Your task to perform on an android device: turn off improve location accuracy Image 0: 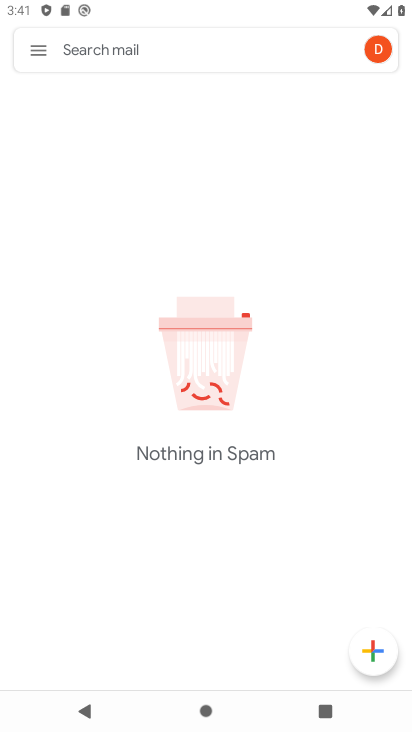
Step 0: press back button
Your task to perform on an android device: turn off improve location accuracy Image 1: 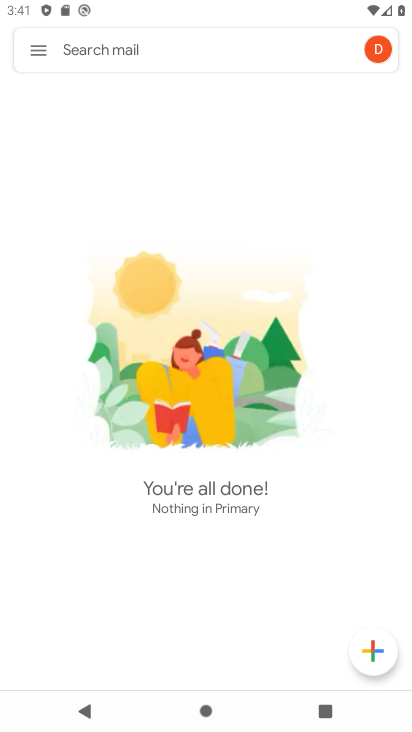
Step 1: press back button
Your task to perform on an android device: turn off improve location accuracy Image 2: 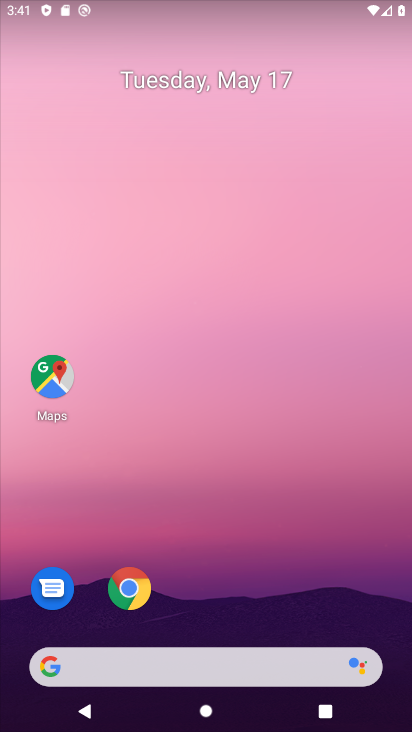
Step 2: drag from (269, 535) to (263, 69)
Your task to perform on an android device: turn off improve location accuracy Image 3: 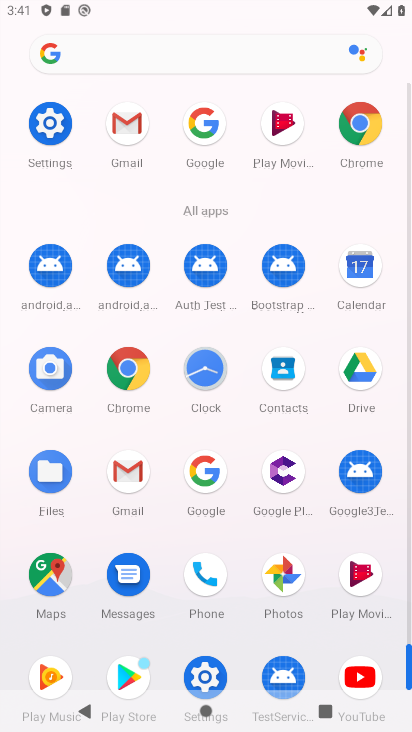
Step 3: click (49, 122)
Your task to perform on an android device: turn off improve location accuracy Image 4: 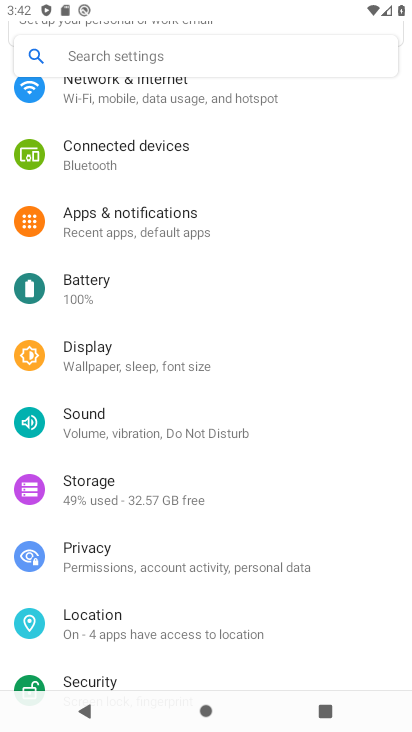
Step 4: drag from (151, 347) to (176, 289)
Your task to perform on an android device: turn off improve location accuracy Image 5: 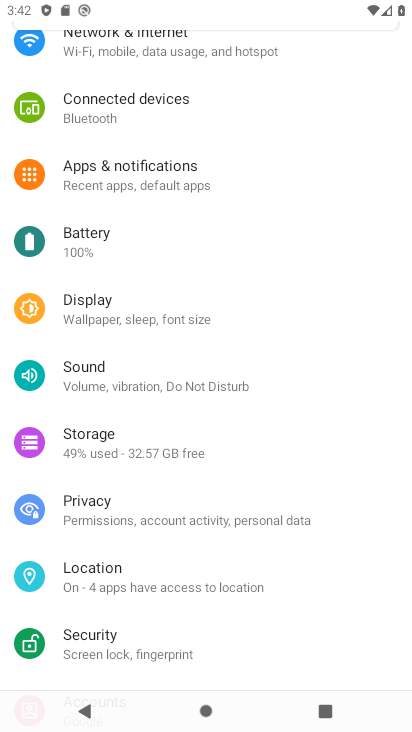
Step 5: drag from (150, 406) to (176, 347)
Your task to perform on an android device: turn off improve location accuracy Image 6: 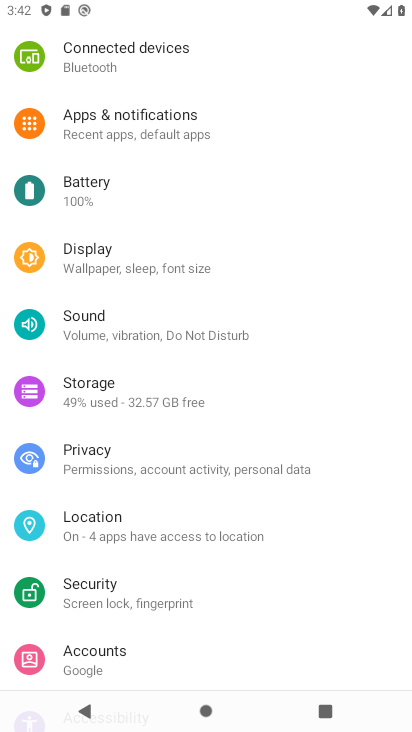
Step 6: drag from (139, 235) to (137, 367)
Your task to perform on an android device: turn off improve location accuracy Image 7: 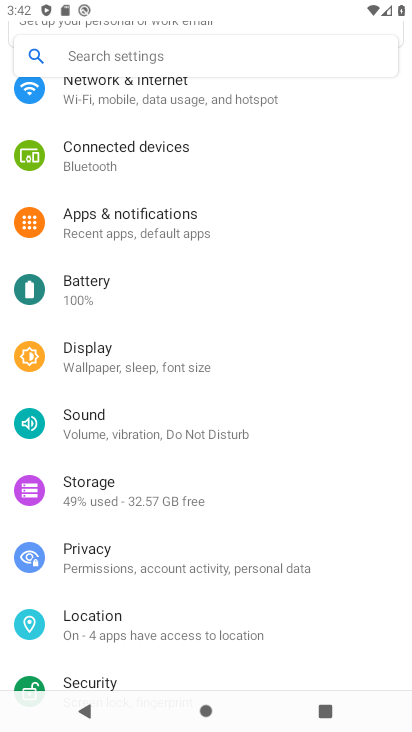
Step 7: drag from (118, 326) to (163, 235)
Your task to perform on an android device: turn off improve location accuracy Image 8: 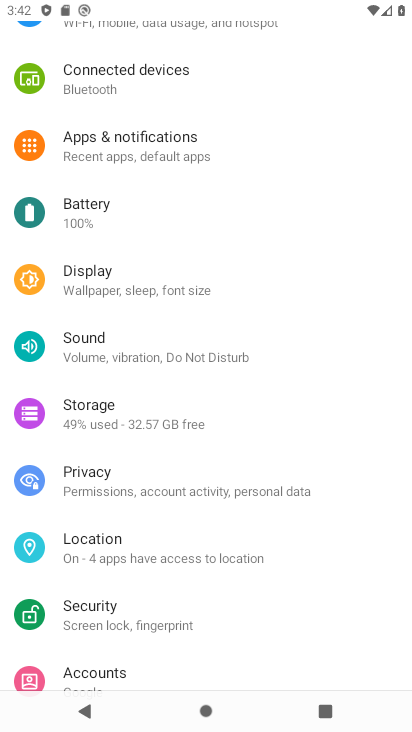
Step 8: click (109, 541)
Your task to perform on an android device: turn off improve location accuracy Image 9: 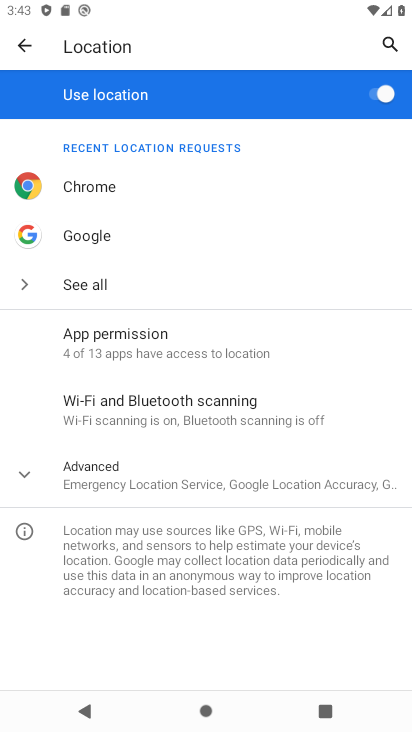
Step 9: click (156, 482)
Your task to perform on an android device: turn off improve location accuracy Image 10: 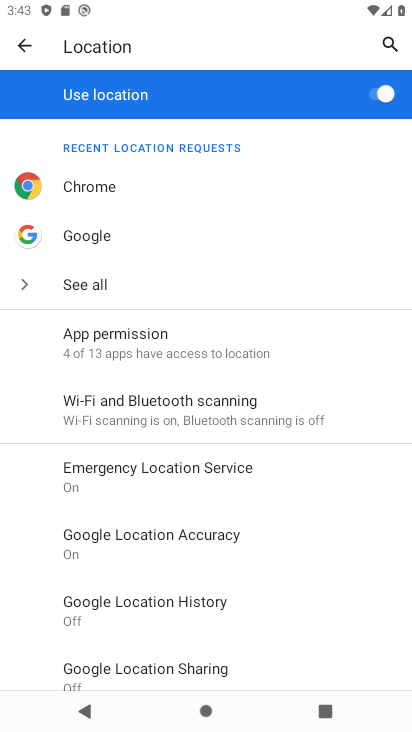
Step 10: drag from (142, 572) to (247, 461)
Your task to perform on an android device: turn off improve location accuracy Image 11: 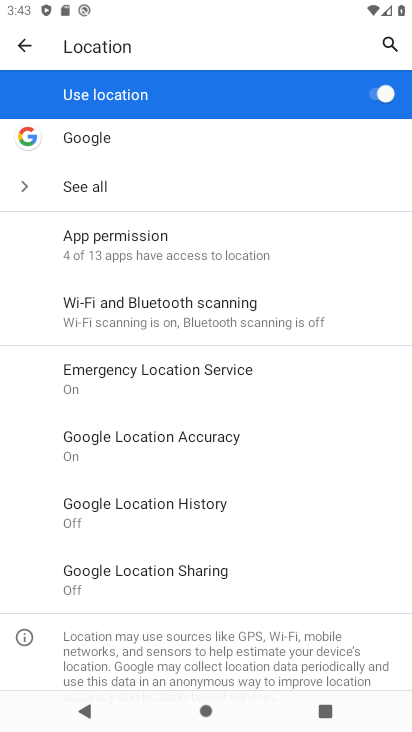
Step 11: click (165, 430)
Your task to perform on an android device: turn off improve location accuracy Image 12: 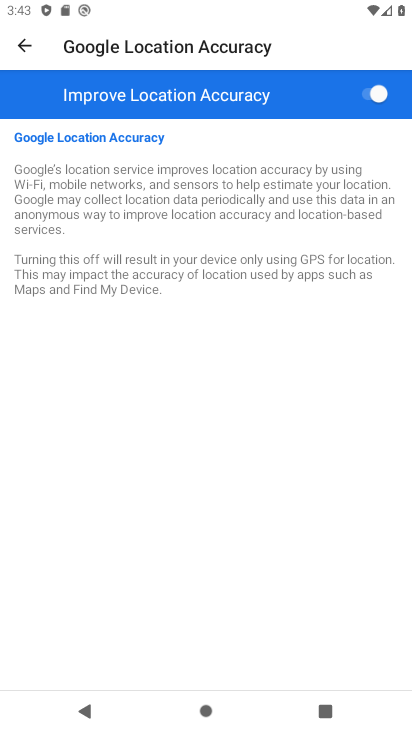
Step 12: click (377, 92)
Your task to perform on an android device: turn off improve location accuracy Image 13: 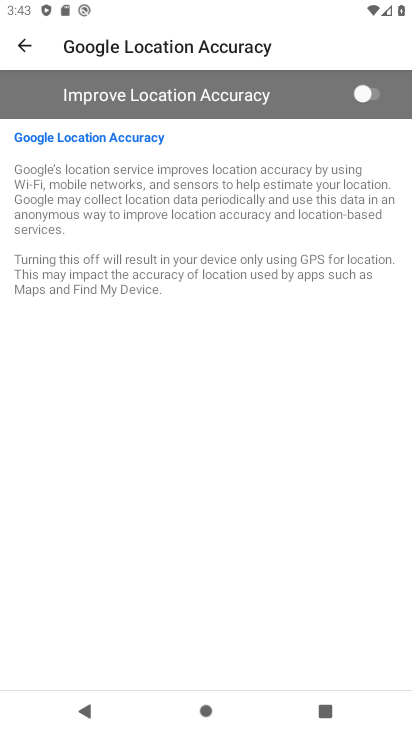
Step 13: task complete